Your task to perform on an android device: Open network settings Image 0: 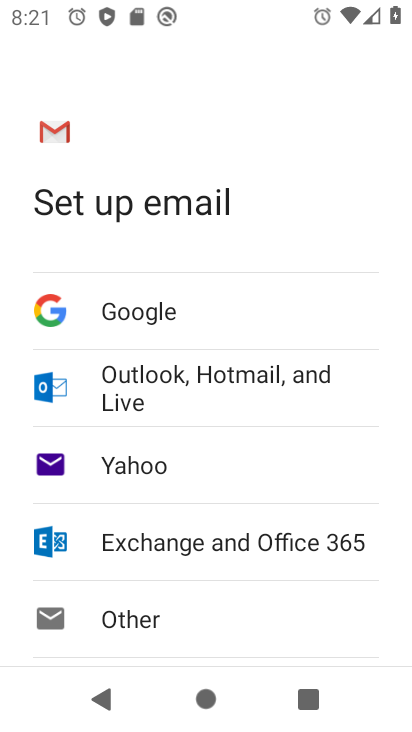
Step 0: press home button
Your task to perform on an android device: Open network settings Image 1: 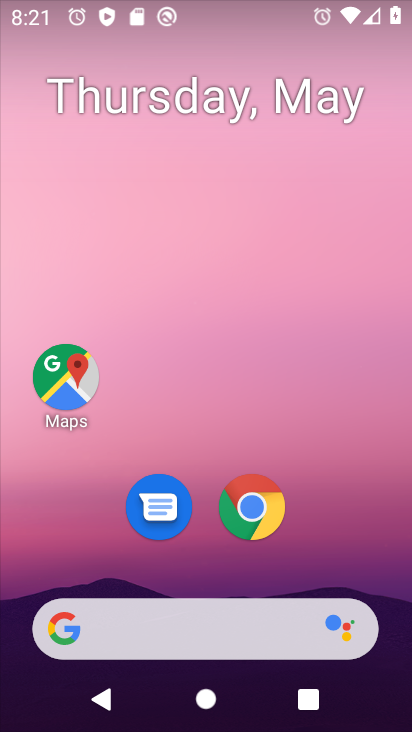
Step 1: drag from (196, 538) to (222, 24)
Your task to perform on an android device: Open network settings Image 2: 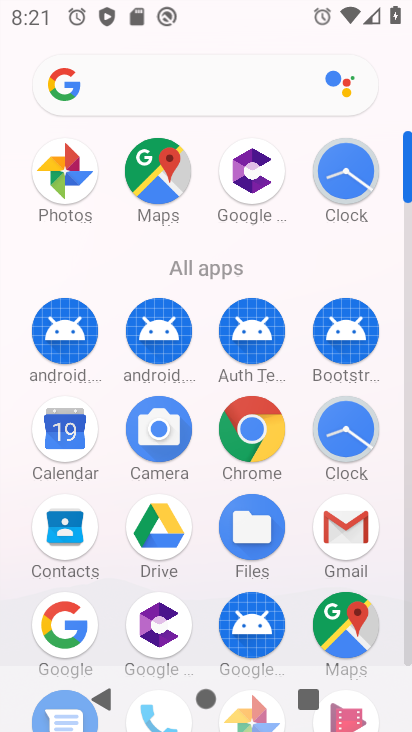
Step 2: drag from (191, 613) to (222, 152)
Your task to perform on an android device: Open network settings Image 3: 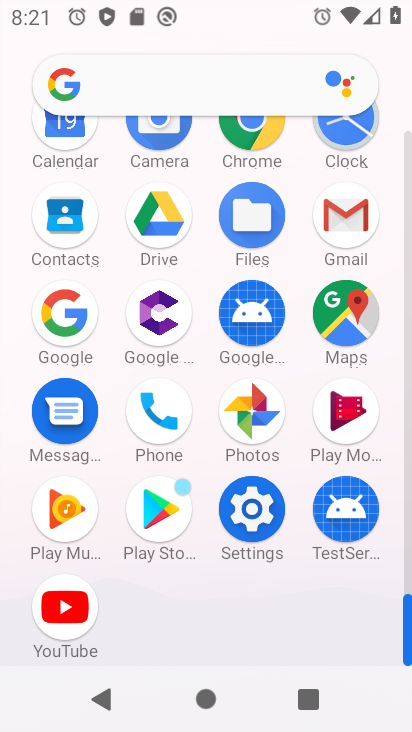
Step 3: click (250, 526)
Your task to perform on an android device: Open network settings Image 4: 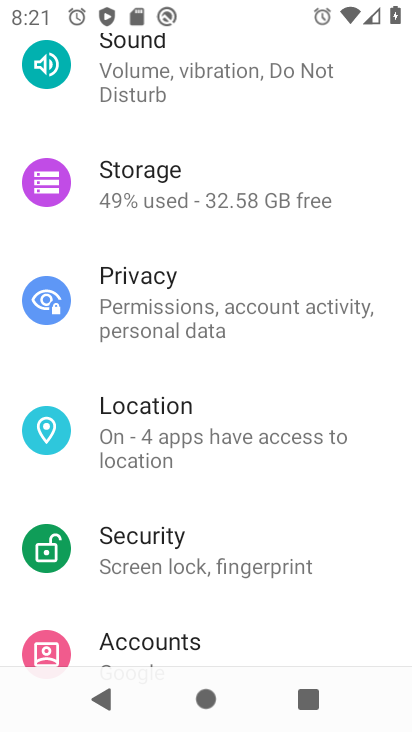
Step 4: drag from (222, 141) to (255, 554)
Your task to perform on an android device: Open network settings Image 5: 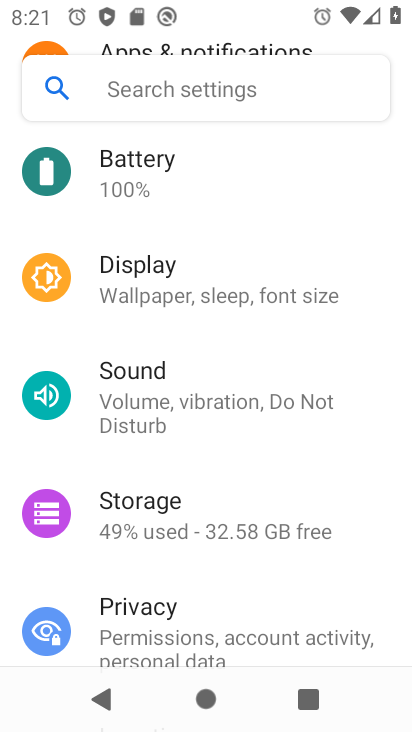
Step 5: drag from (227, 155) to (242, 528)
Your task to perform on an android device: Open network settings Image 6: 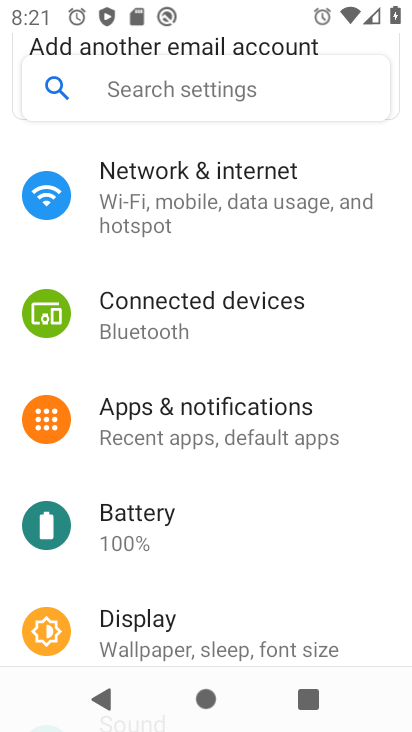
Step 6: click (215, 196)
Your task to perform on an android device: Open network settings Image 7: 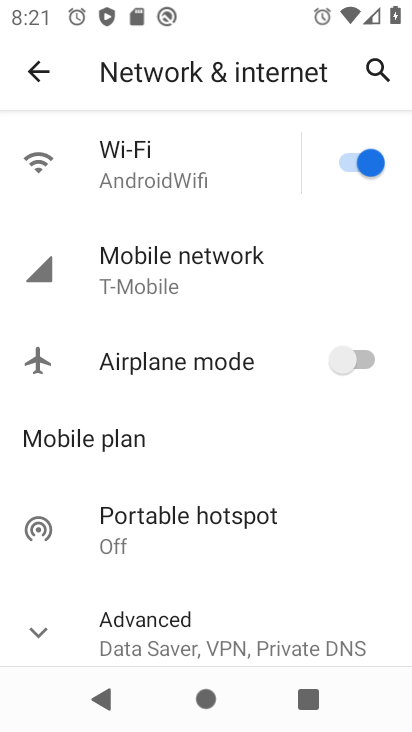
Step 7: click (200, 276)
Your task to perform on an android device: Open network settings Image 8: 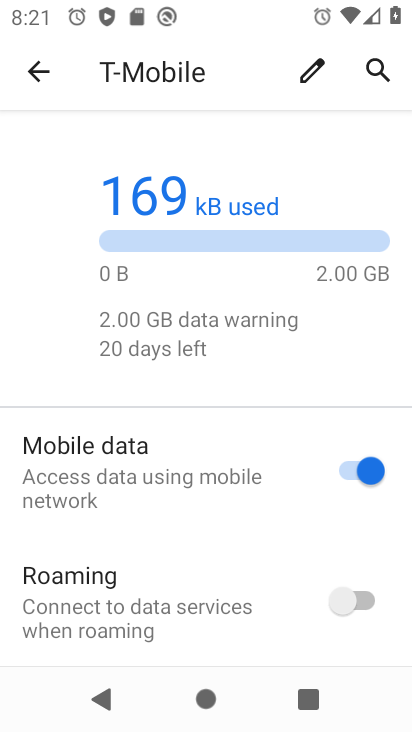
Step 8: task complete